Your task to perform on an android device: turn on location history Image 0: 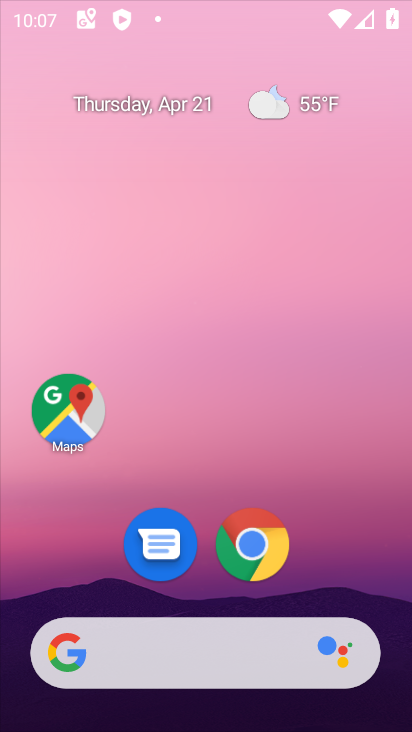
Step 0: click (238, 57)
Your task to perform on an android device: turn on location history Image 1: 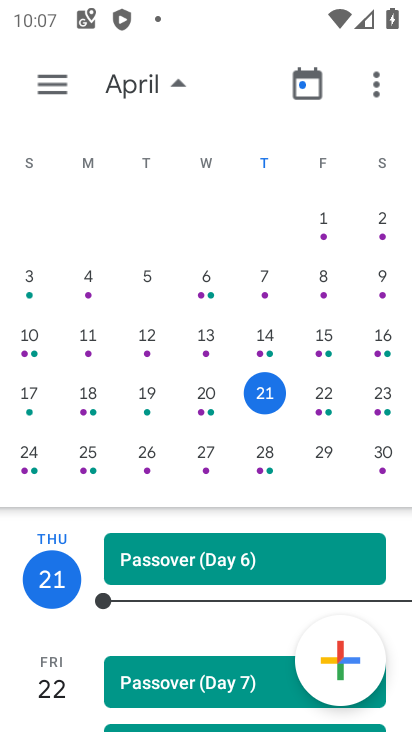
Step 1: press back button
Your task to perform on an android device: turn on location history Image 2: 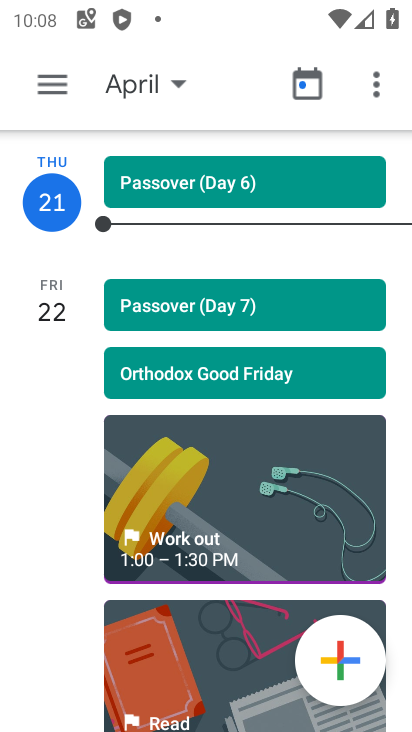
Step 2: press back button
Your task to perform on an android device: turn on location history Image 3: 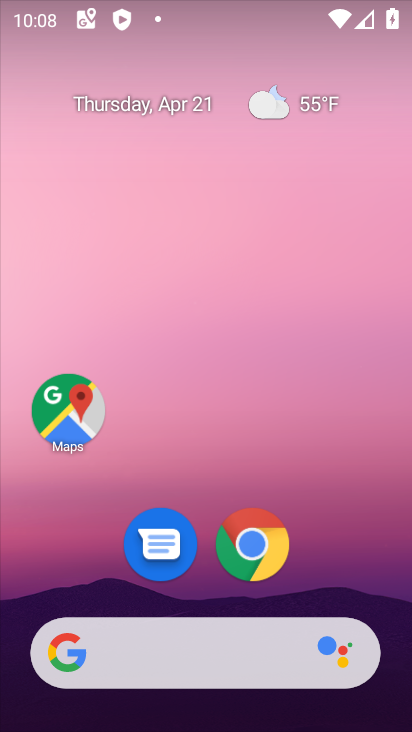
Step 3: drag from (373, 548) to (227, 3)
Your task to perform on an android device: turn on location history Image 4: 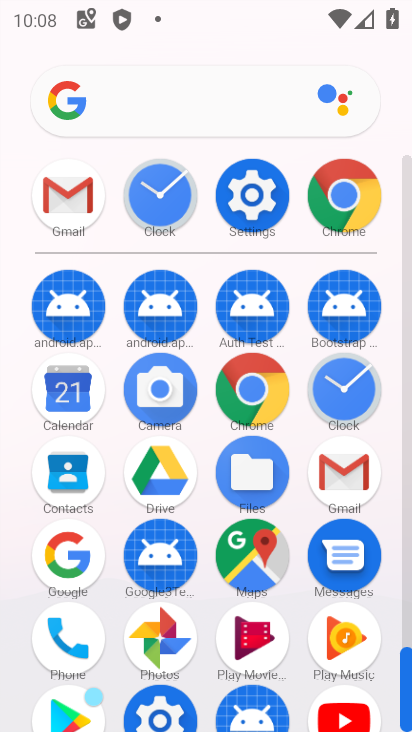
Step 4: click (249, 185)
Your task to perform on an android device: turn on location history Image 5: 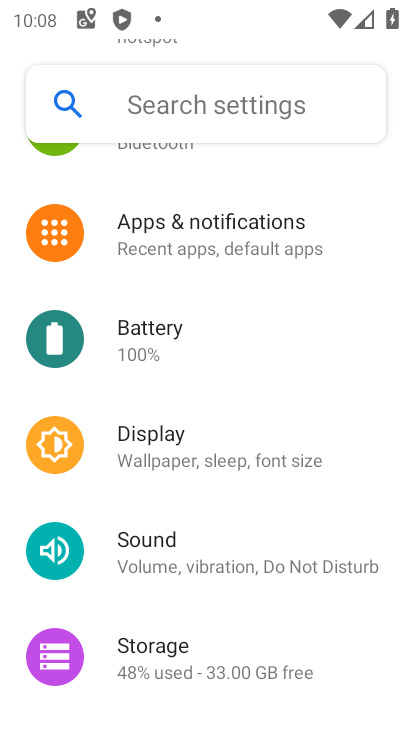
Step 5: drag from (255, 223) to (280, 580)
Your task to perform on an android device: turn on location history Image 6: 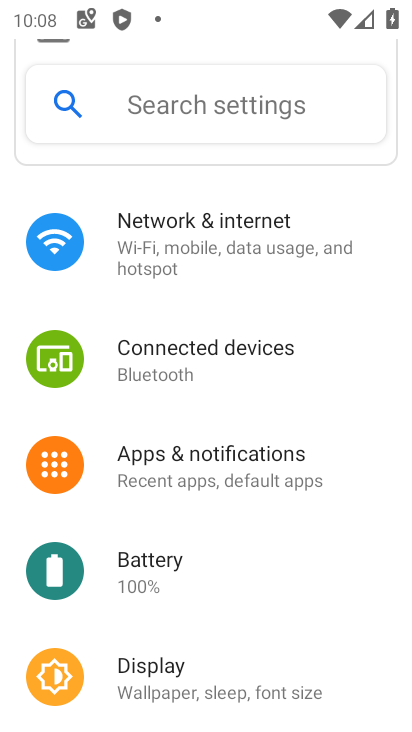
Step 6: drag from (281, 625) to (285, 236)
Your task to perform on an android device: turn on location history Image 7: 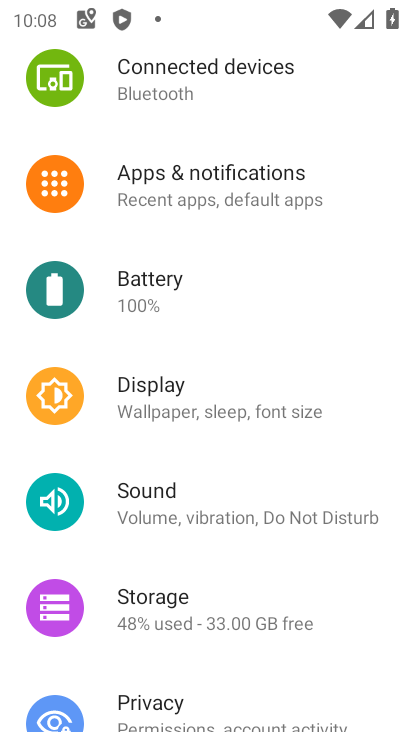
Step 7: drag from (249, 594) to (252, 160)
Your task to perform on an android device: turn on location history Image 8: 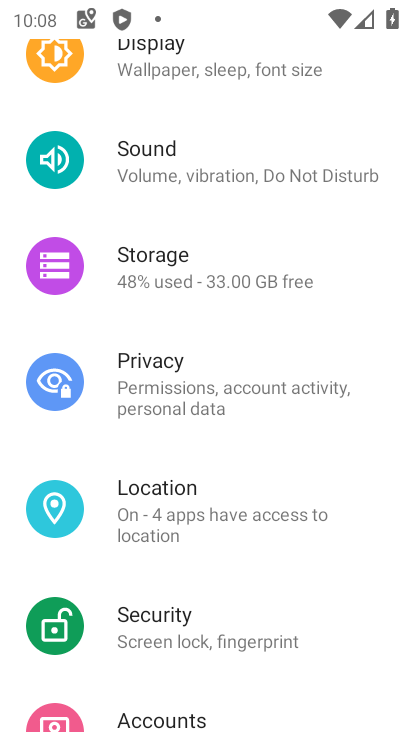
Step 8: click (169, 501)
Your task to perform on an android device: turn on location history Image 9: 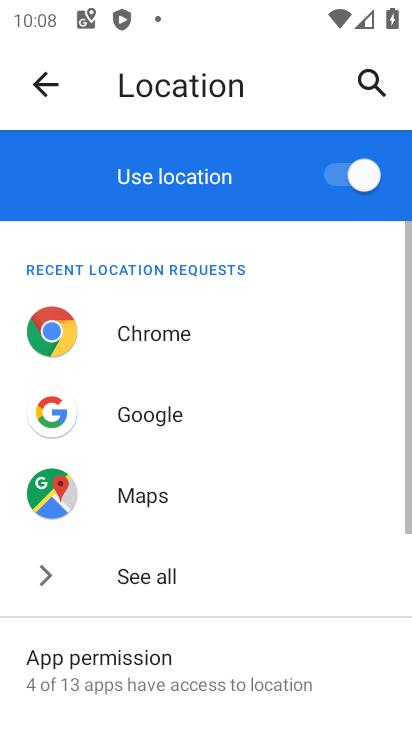
Step 9: drag from (255, 587) to (261, 228)
Your task to perform on an android device: turn on location history Image 10: 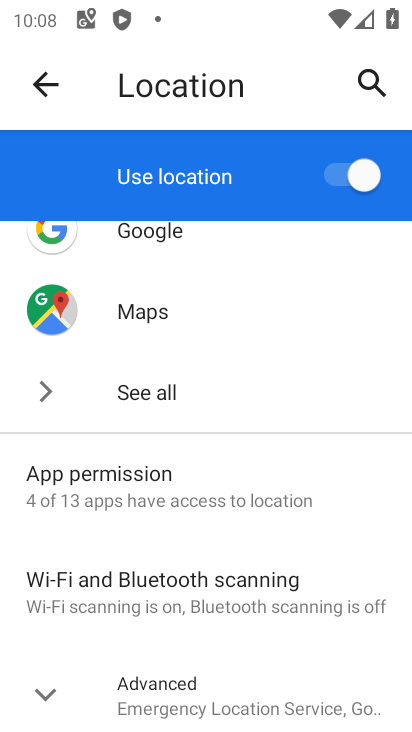
Step 10: drag from (219, 596) to (220, 221)
Your task to perform on an android device: turn on location history Image 11: 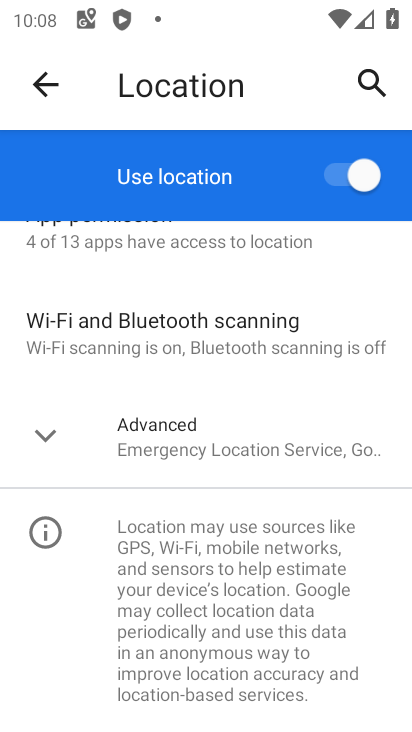
Step 11: click (58, 417)
Your task to perform on an android device: turn on location history Image 12: 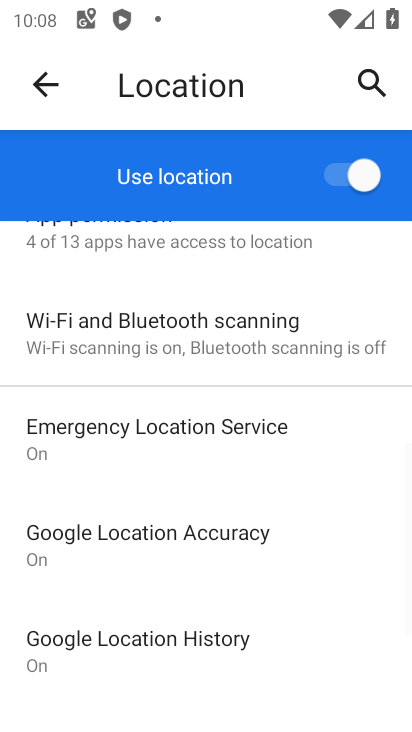
Step 12: task complete